Your task to perform on an android device: Go to settings Image 0: 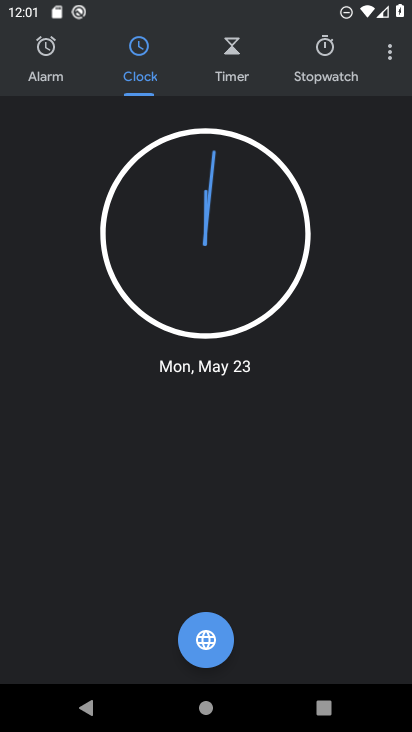
Step 0: press home button
Your task to perform on an android device: Go to settings Image 1: 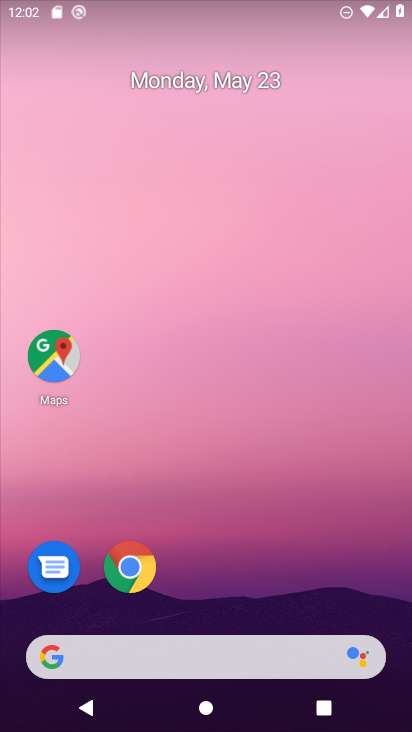
Step 1: drag from (192, 618) to (240, 139)
Your task to perform on an android device: Go to settings Image 2: 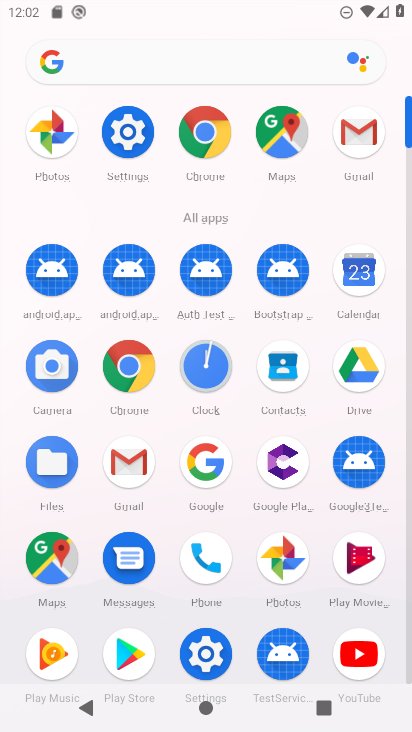
Step 2: click (194, 656)
Your task to perform on an android device: Go to settings Image 3: 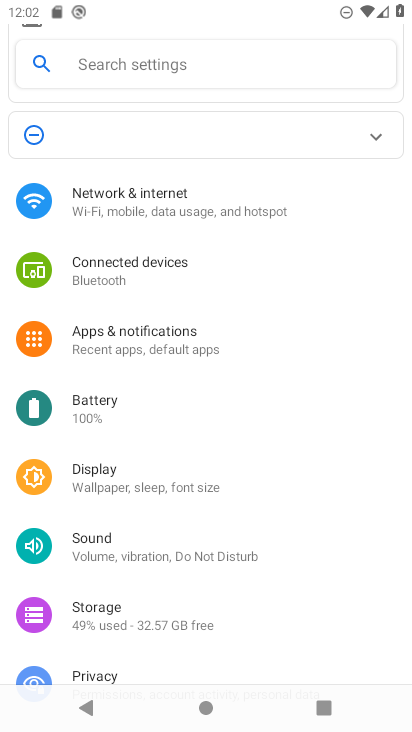
Step 3: task complete